Your task to perform on an android device: Open Reddit.com Image 0: 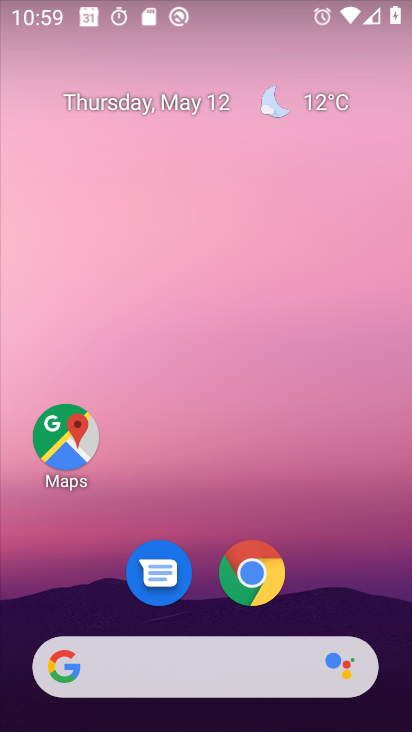
Step 0: click (258, 571)
Your task to perform on an android device: Open Reddit.com Image 1: 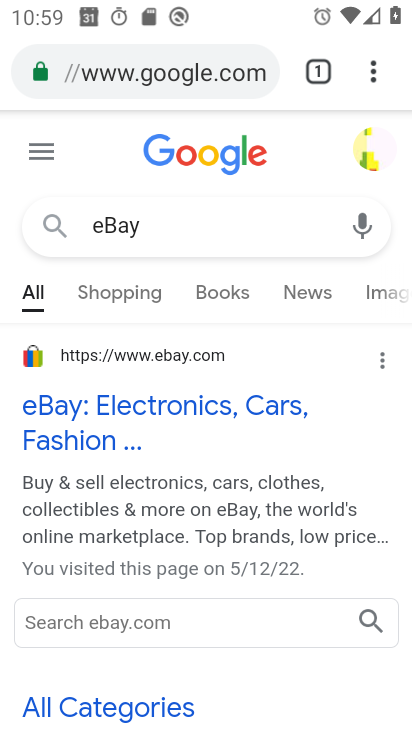
Step 1: click (305, 554)
Your task to perform on an android device: Open Reddit.com Image 2: 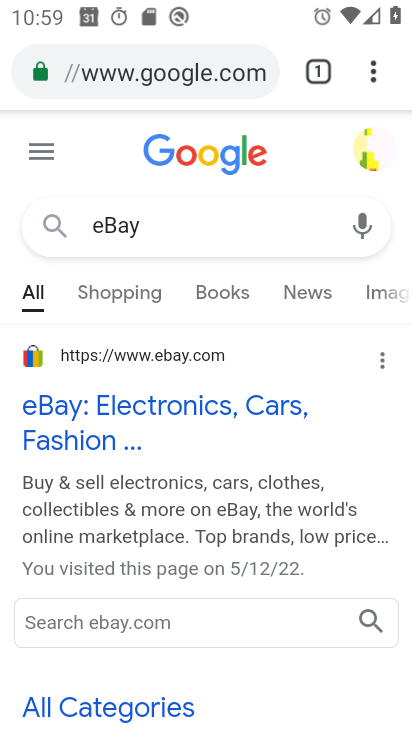
Step 2: click (151, 232)
Your task to perform on an android device: Open Reddit.com Image 3: 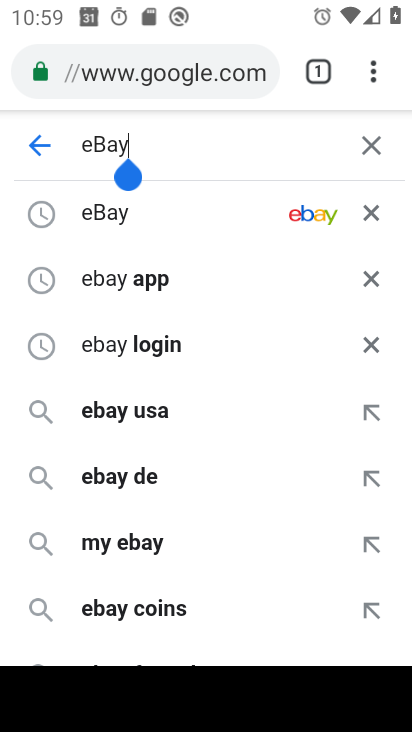
Step 3: click (265, 74)
Your task to perform on an android device: Open Reddit.com Image 4: 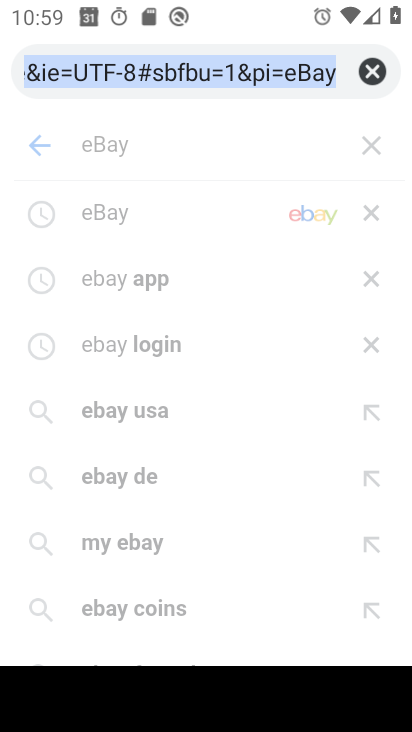
Step 4: click (378, 72)
Your task to perform on an android device: Open Reddit.com Image 5: 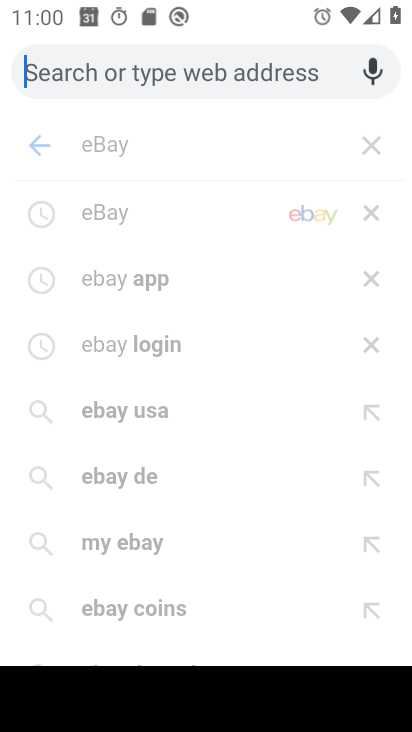
Step 5: click (193, 489)
Your task to perform on an android device: Open Reddit.com Image 6: 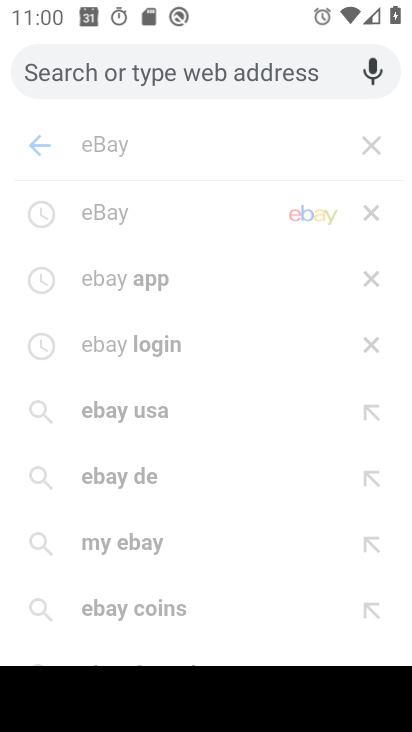
Step 6: task complete